Your task to perform on an android device: Open Google Maps and go to "Timeline" Image 0: 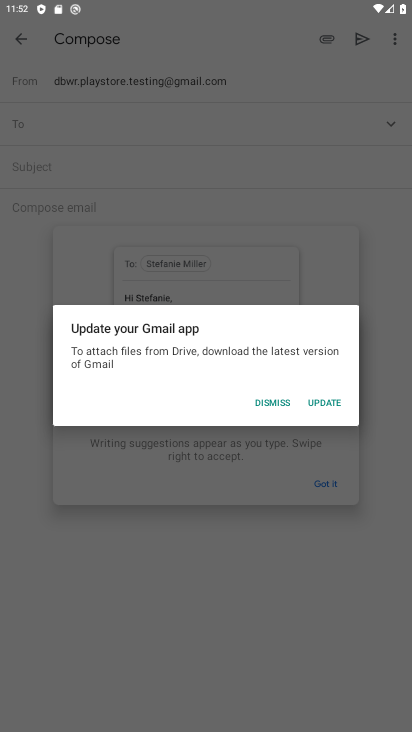
Step 0: press home button
Your task to perform on an android device: Open Google Maps and go to "Timeline" Image 1: 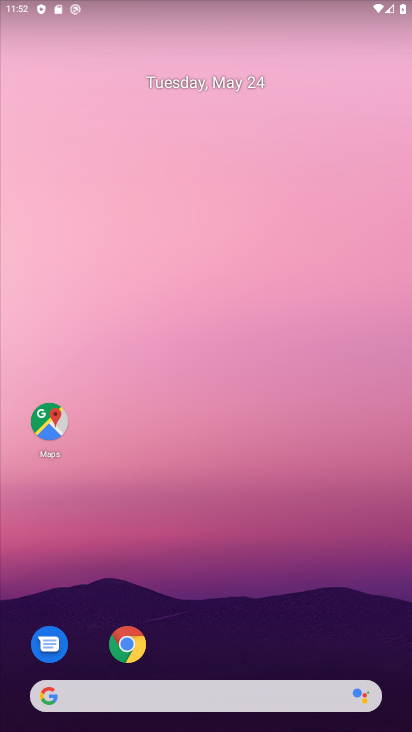
Step 1: click (54, 421)
Your task to perform on an android device: Open Google Maps and go to "Timeline" Image 2: 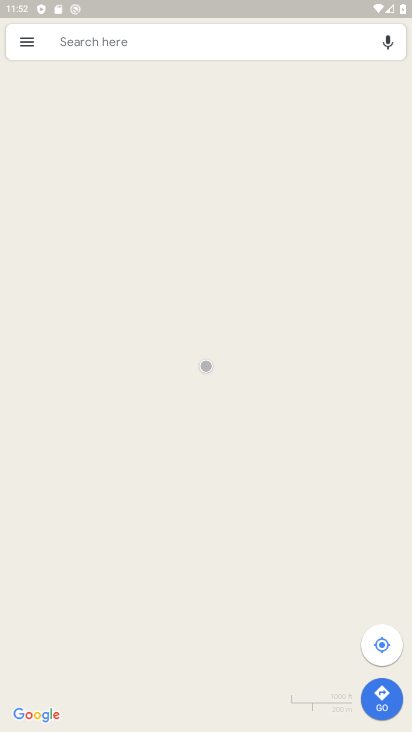
Step 2: click (38, 39)
Your task to perform on an android device: Open Google Maps and go to "Timeline" Image 3: 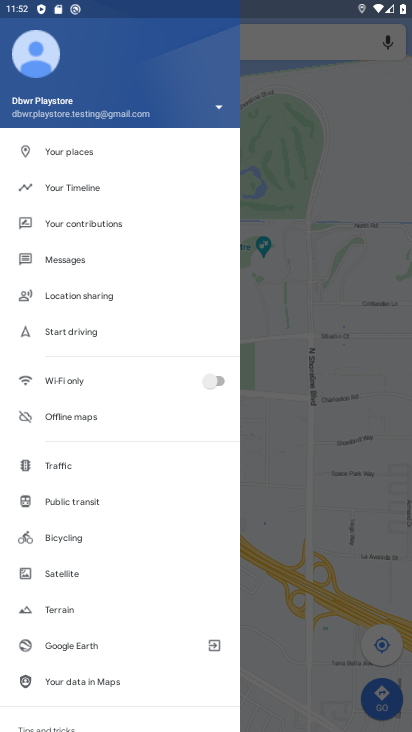
Step 3: click (126, 199)
Your task to perform on an android device: Open Google Maps and go to "Timeline" Image 4: 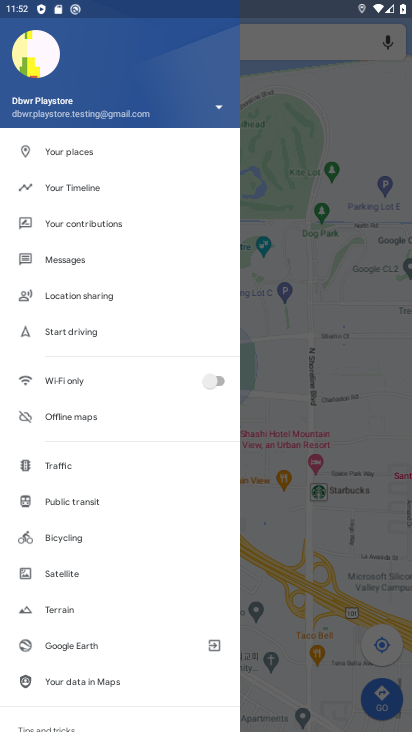
Step 4: click (118, 195)
Your task to perform on an android device: Open Google Maps and go to "Timeline" Image 5: 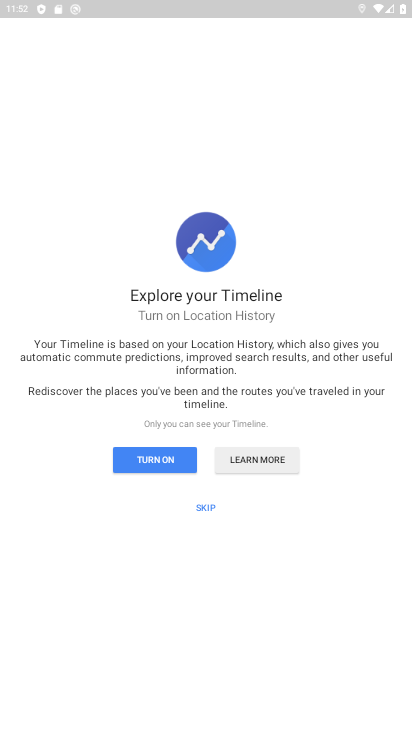
Step 5: click (199, 514)
Your task to perform on an android device: Open Google Maps and go to "Timeline" Image 6: 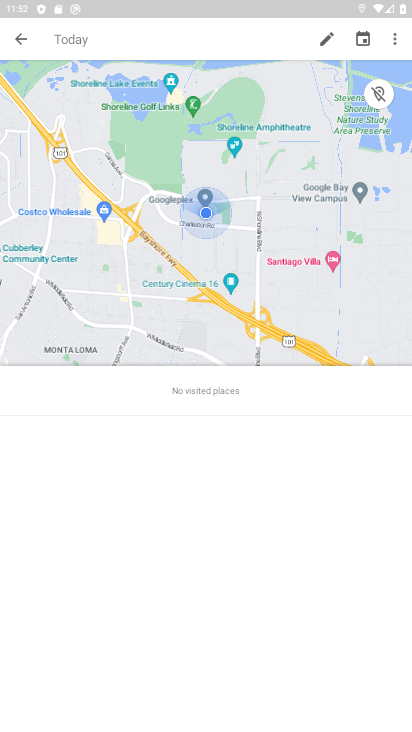
Step 6: task complete